Your task to perform on an android device: Search for sushi restaurants on Maps Image 0: 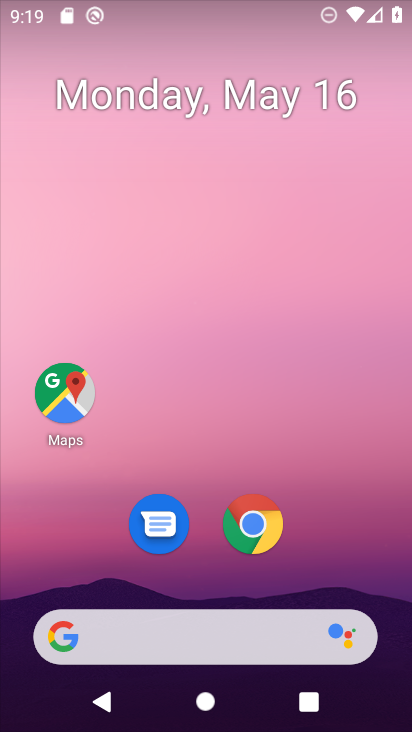
Step 0: click (76, 398)
Your task to perform on an android device: Search for sushi restaurants on Maps Image 1: 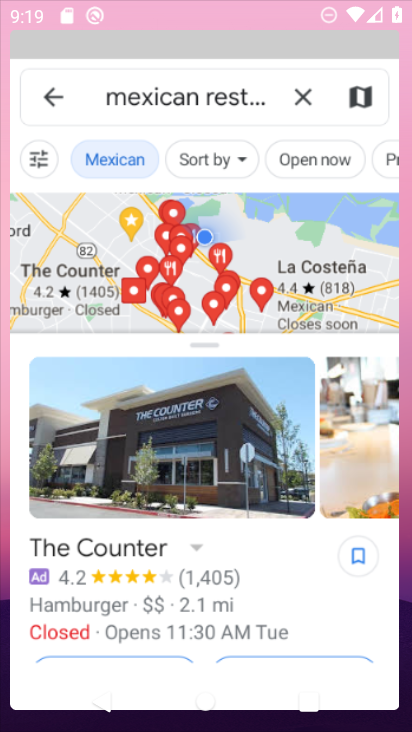
Step 1: click (76, 398)
Your task to perform on an android device: Search for sushi restaurants on Maps Image 2: 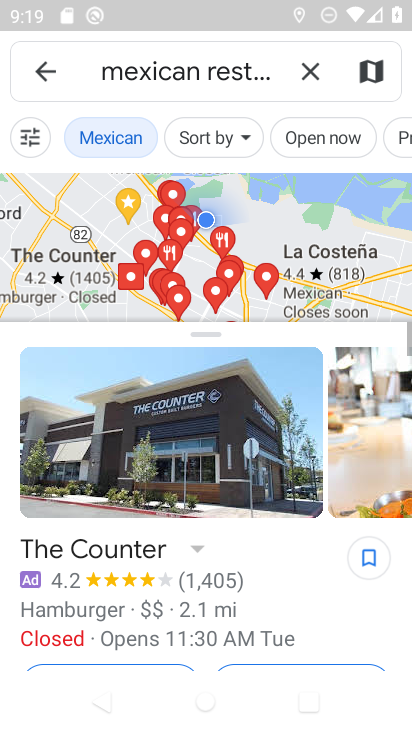
Step 2: click (309, 71)
Your task to perform on an android device: Search for sushi restaurants on Maps Image 3: 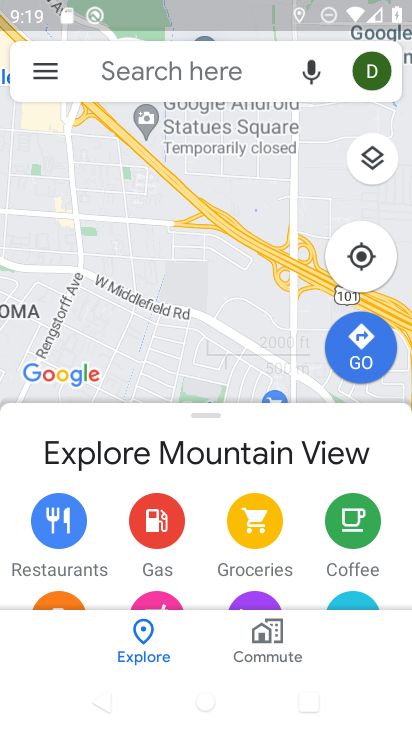
Step 3: click (191, 62)
Your task to perform on an android device: Search for sushi restaurants on Maps Image 4: 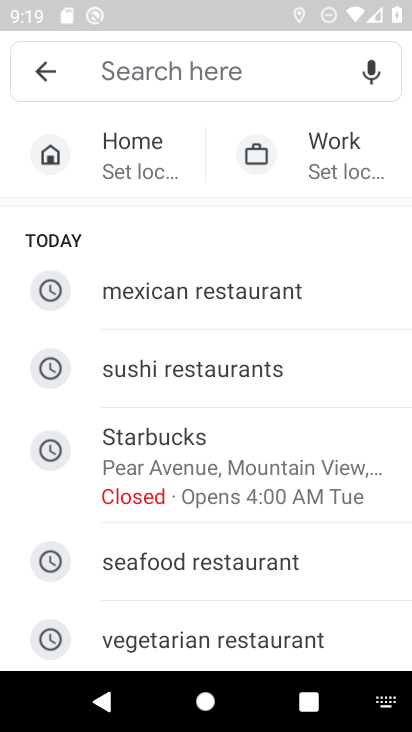
Step 4: click (186, 360)
Your task to perform on an android device: Search for sushi restaurants on Maps Image 5: 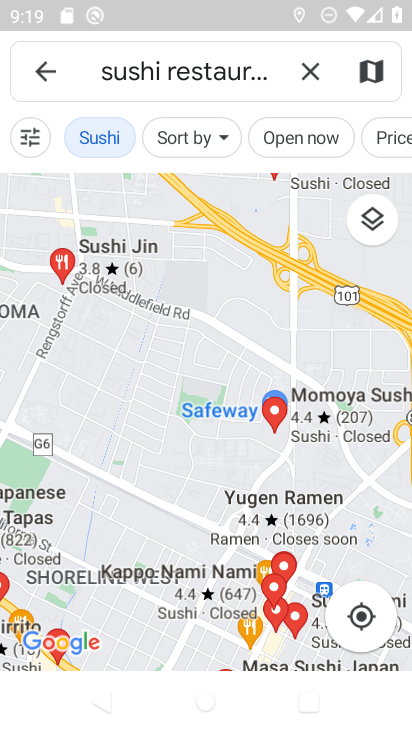
Step 5: task complete